Your task to perform on an android device: Google the capital of Chile Image 0: 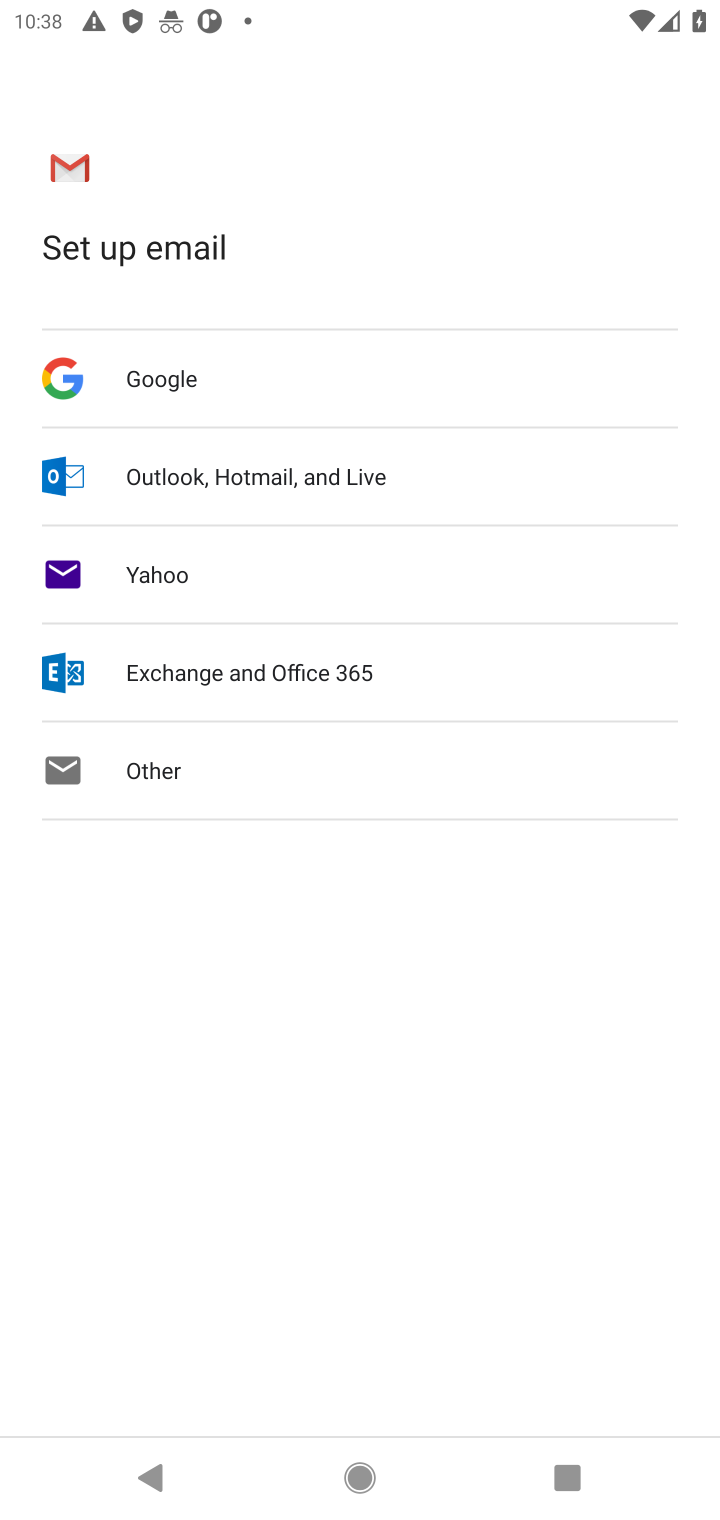
Step 0: press home button
Your task to perform on an android device: Google the capital of Chile Image 1: 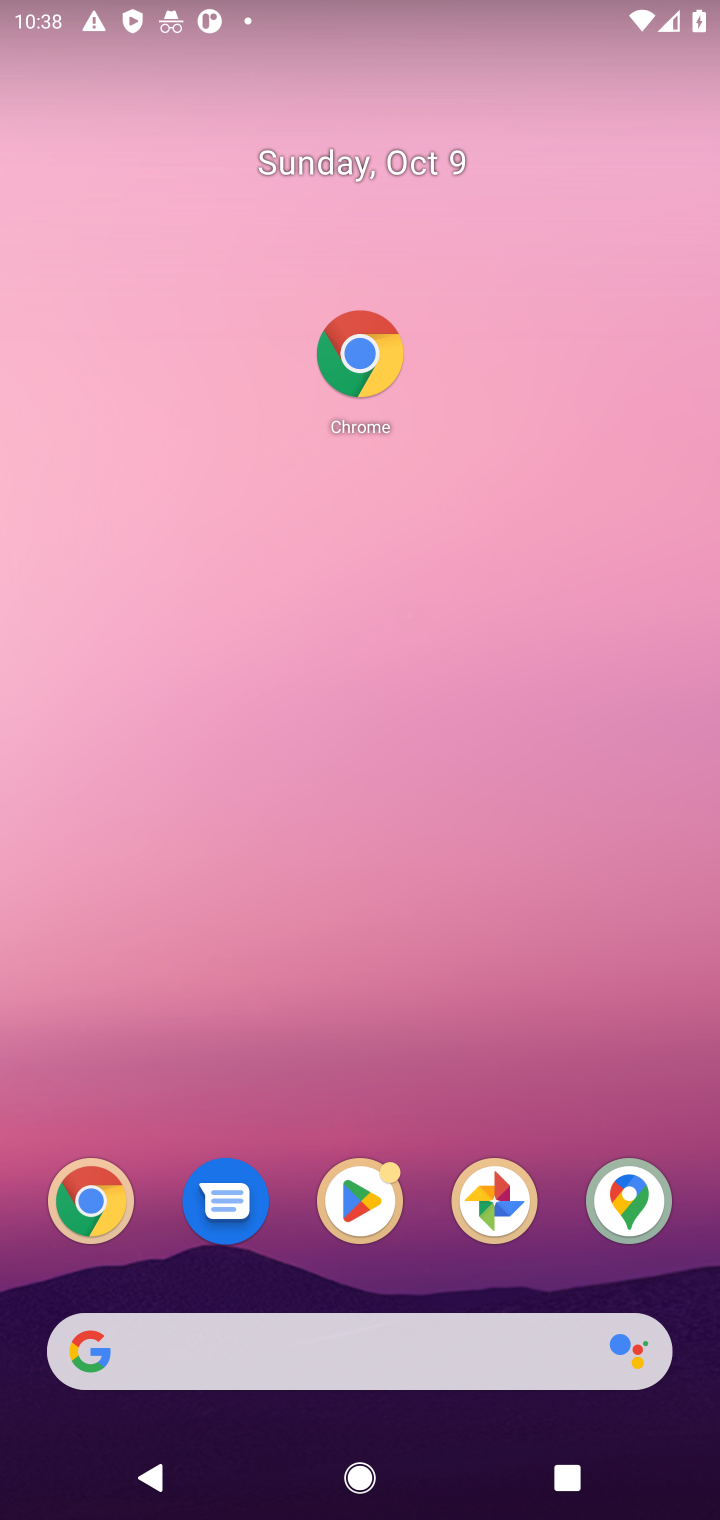
Step 1: click (82, 1198)
Your task to perform on an android device: Google the capital of Chile Image 2: 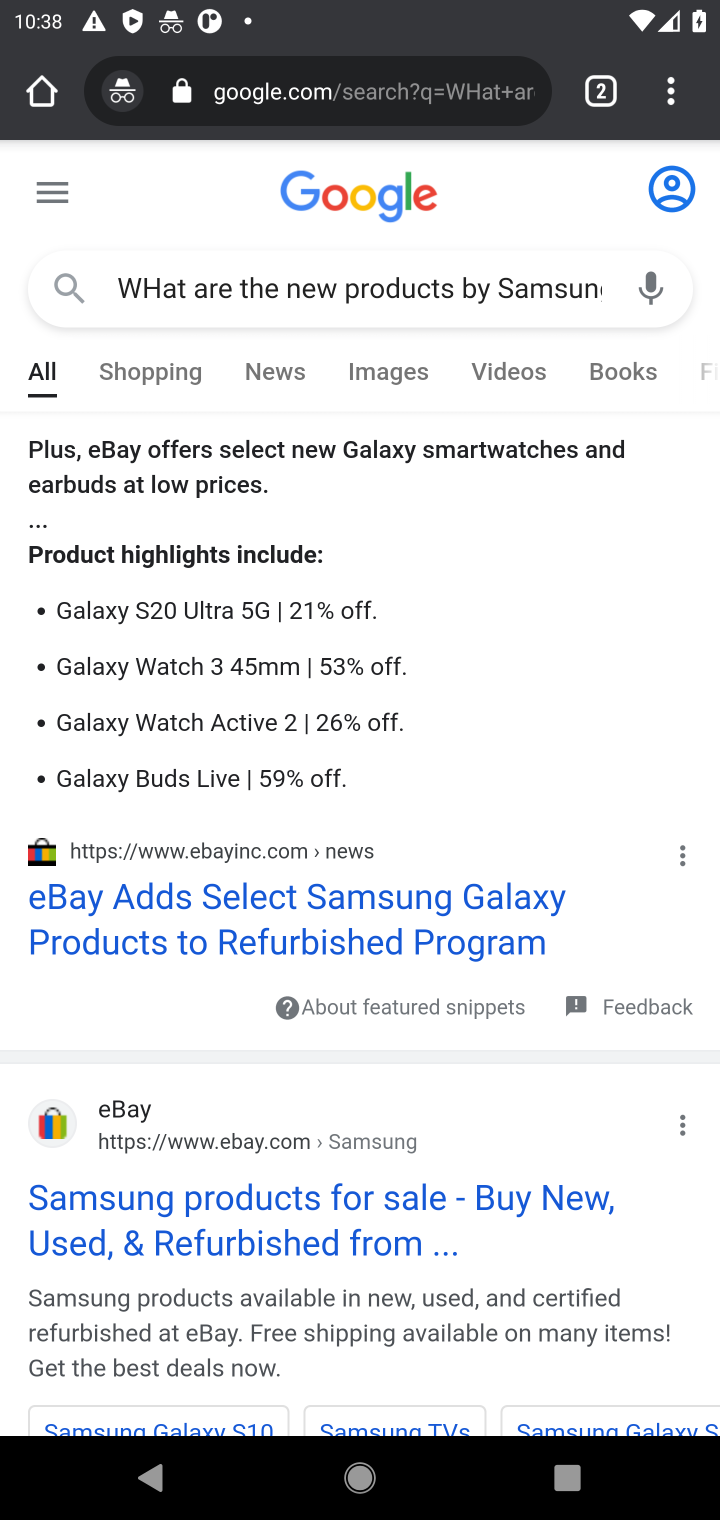
Step 2: click (319, 93)
Your task to perform on an android device: Google the capital of Chile Image 3: 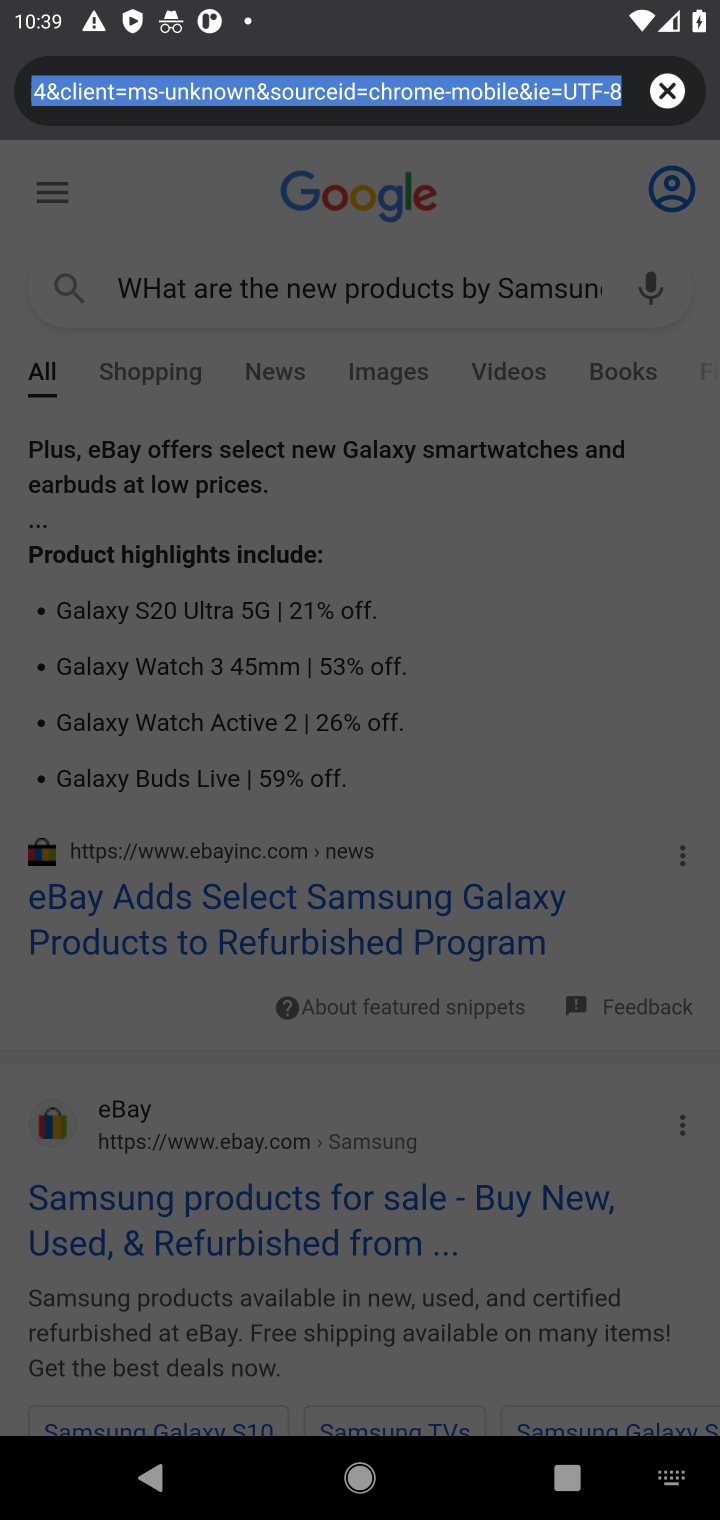
Step 3: type "capital of chile "
Your task to perform on an android device: Google the capital of Chile Image 4: 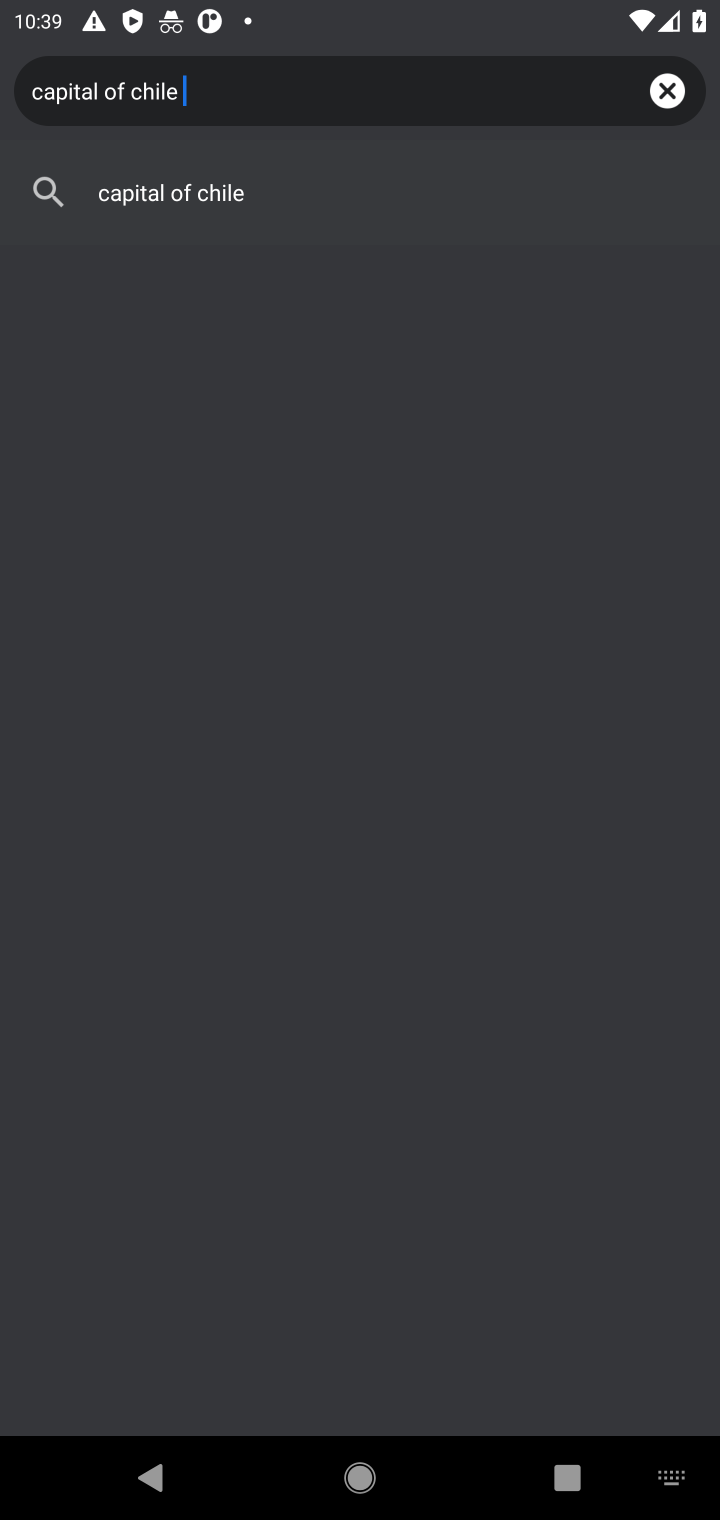
Step 4: click (212, 182)
Your task to perform on an android device: Google the capital of Chile Image 5: 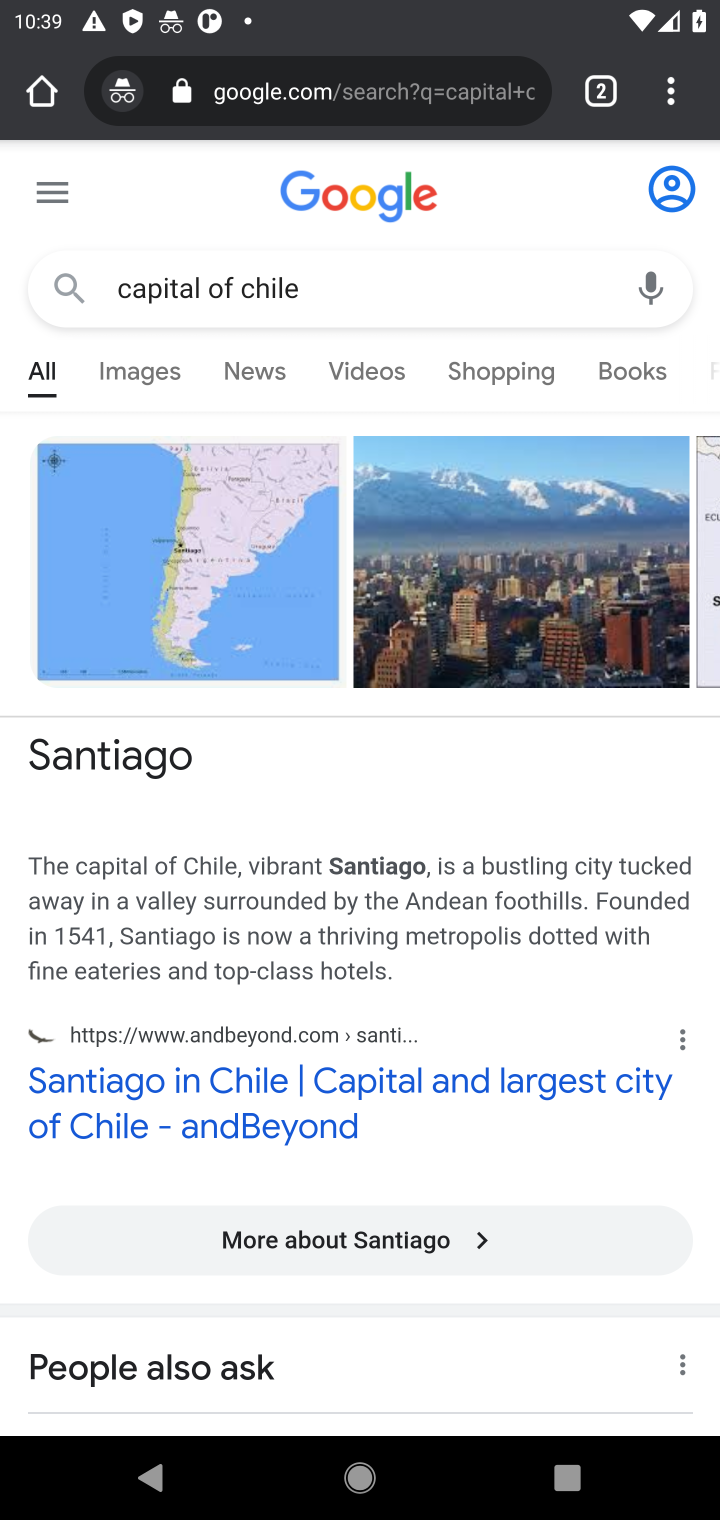
Step 5: task complete